Your task to perform on an android device: toggle notification dots Image 0: 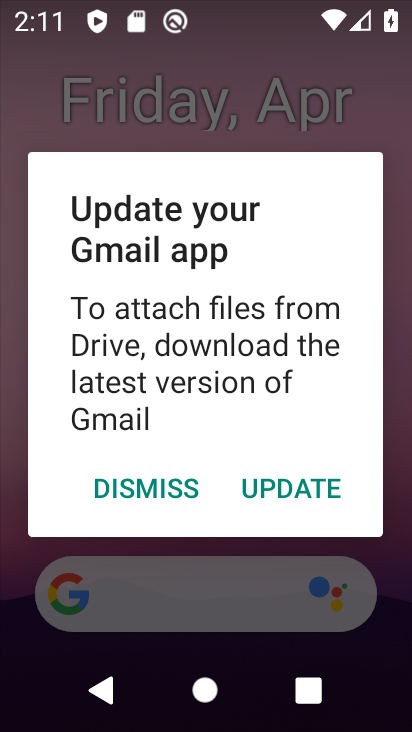
Step 0: press home button
Your task to perform on an android device: toggle notification dots Image 1: 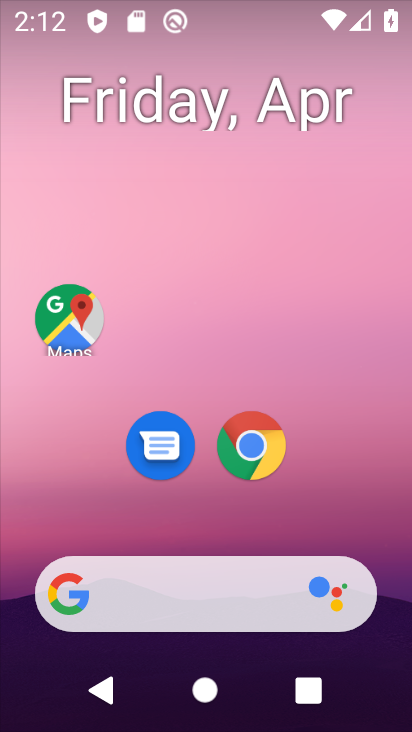
Step 1: drag from (328, 432) to (262, 1)
Your task to perform on an android device: toggle notification dots Image 2: 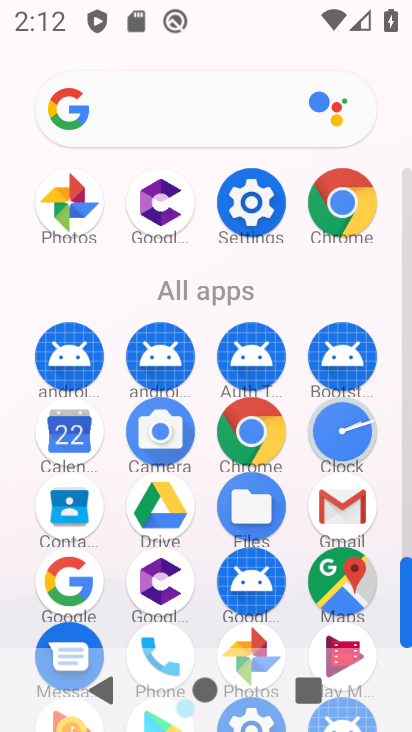
Step 2: click (252, 199)
Your task to perform on an android device: toggle notification dots Image 3: 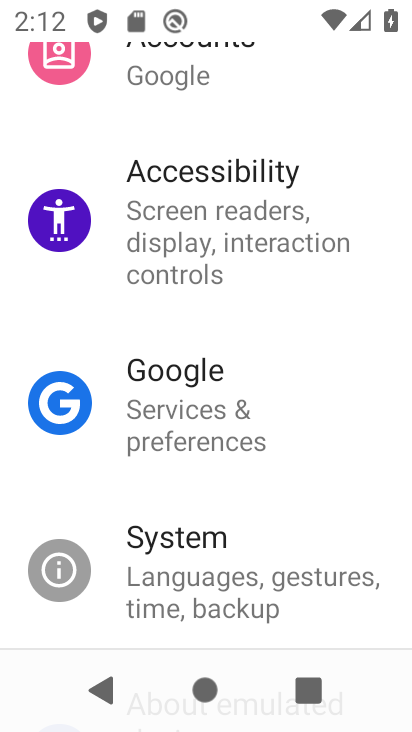
Step 3: drag from (255, 319) to (227, 518)
Your task to perform on an android device: toggle notification dots Image 4: 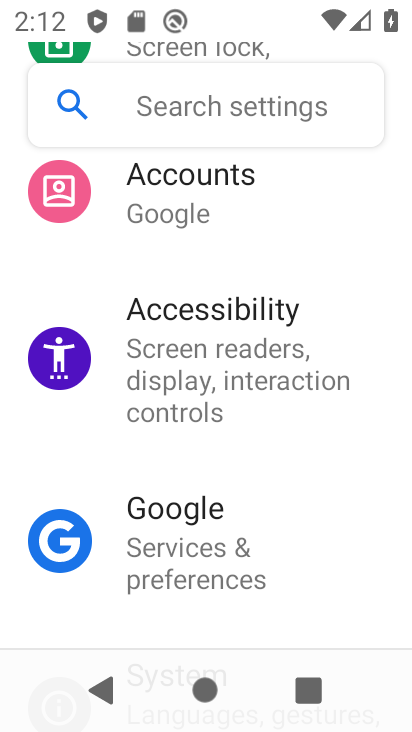
Step 4: drag from (271, 248) to (274, 486)
Your task to perform on an android device: toggle notification dots Image 5: 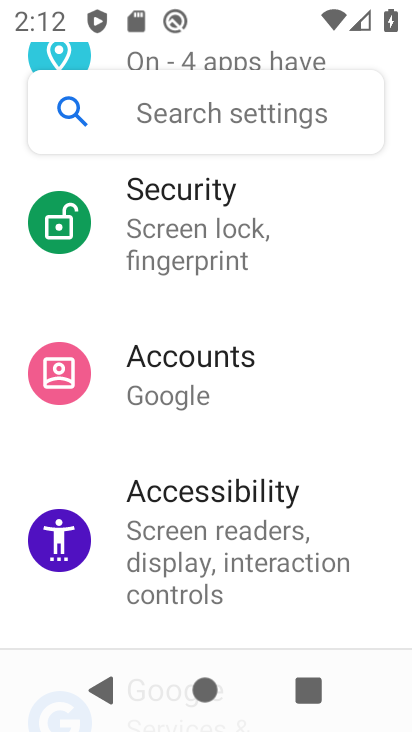
Step 5: drag from (264, 302) to (263, 493)
Your task to perform on an android device: toggle notification dots Image 6: 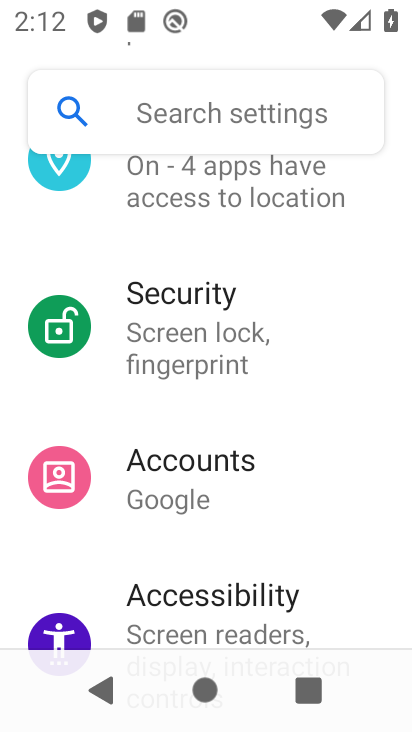
Step 6: drag from (267, 271) to (264, 459)
Your task to perform on an android device: toggle notification dots Image 7: 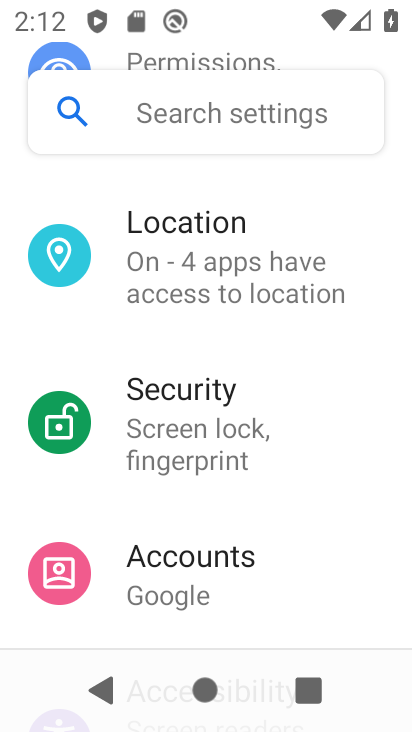
Step 7: drag from (301, 214) to (302, 468)
Your task to perform on an android device: toggle notification dots Image 8: 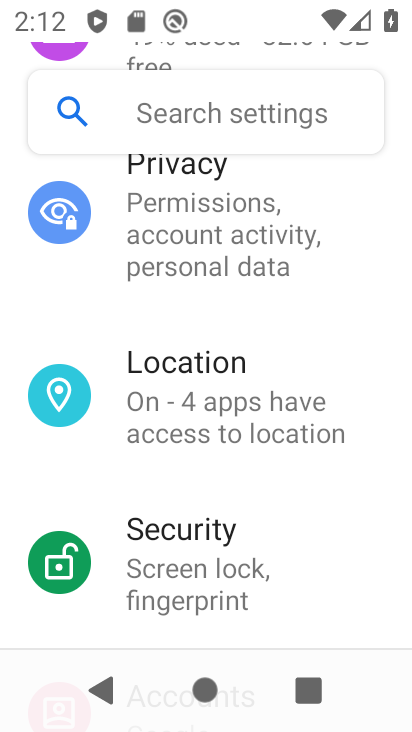
Step 8: drag from (291, 323) to (292, 514)
Your task to perform on an android device: toggle notification dots Image 9: 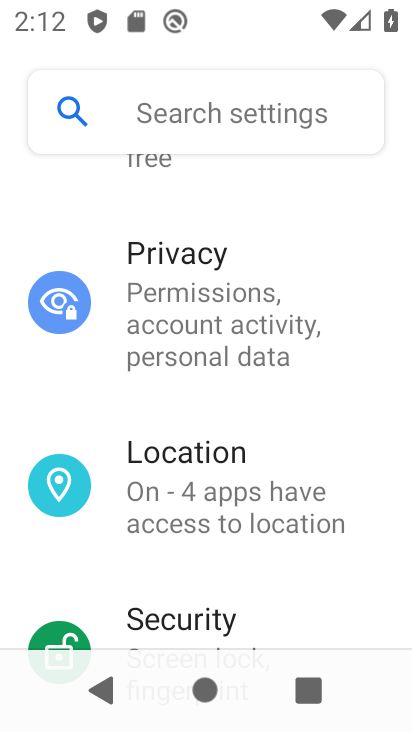
Step 9: drag from (316, 216) to (314, 388)
Your task to perform on an android device: toggle notification dots Image 10: 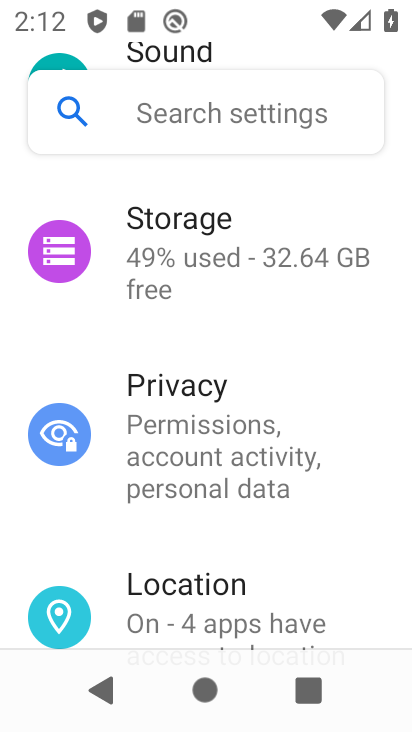
Step 10: drag from (290, 320) to (310, 508)
Your task to perform on an android device: toggle notification dots Image 11: 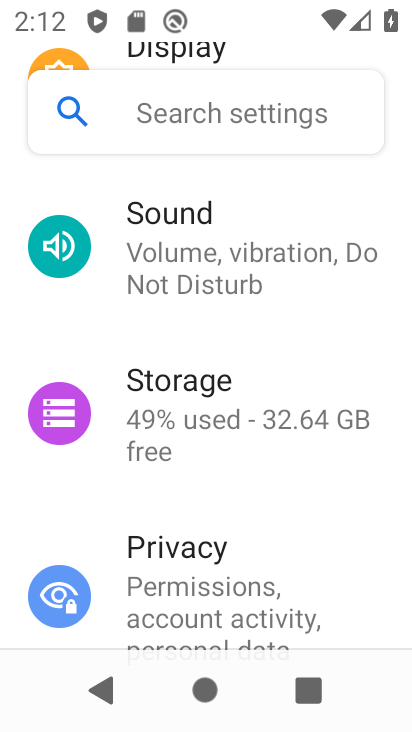
Step 11: drag from (277, 329) to (274, 495)
Your task to perform on an android device: toggle notification dots Image 12: 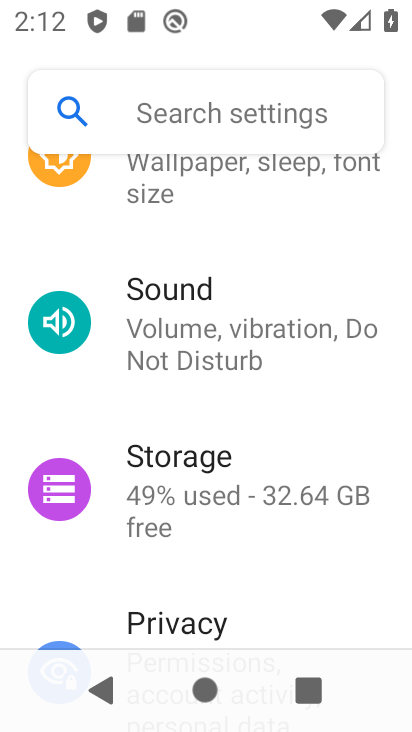
Step 12: drag from (314, 267) to (314, 451)
Your task to perform on an android device: toggle notification dots Image 13: 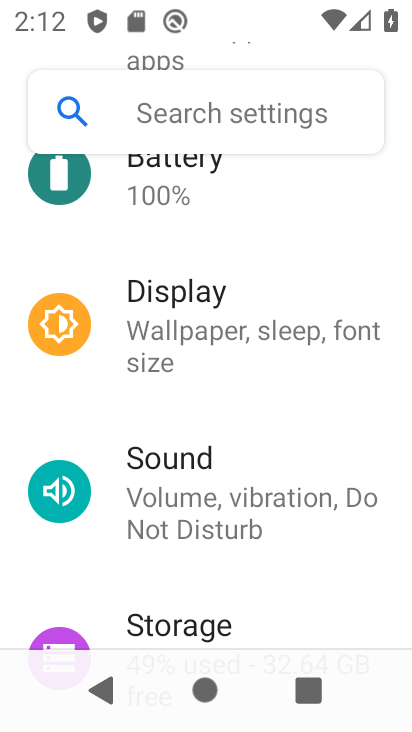
Step 13: drag from (303, 254) to (265, 459)
Your task to perform on an android device: toggle notification dots Image 14: 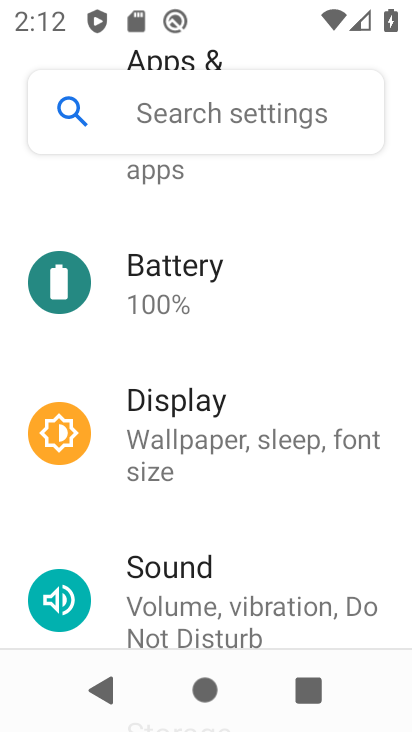
Step 14: drag from (288, 331) to (292, 540)
Your task to perform on an android device: toggle notification dots Image 15: 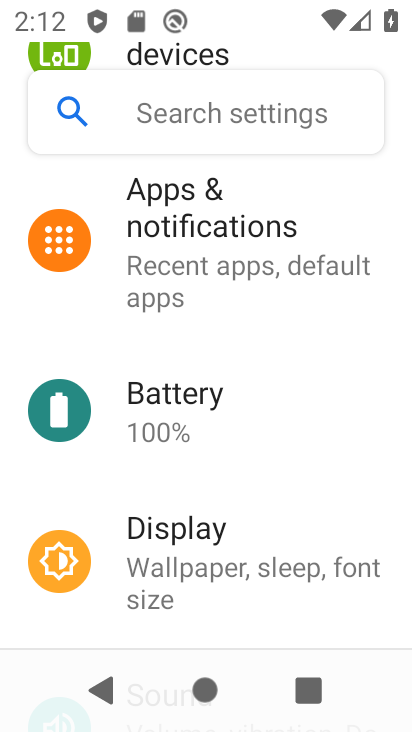
Step 15: click (258, 233)
Your task to perform on an android device: toggle notification dots Image 16: 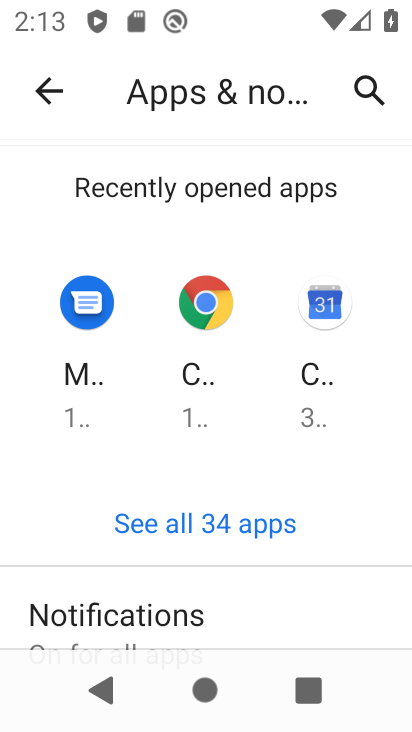
Step 16: drag from (288, 595) to (320, 377)
Your task to perform on an android device: toggle notification dots Image 17: 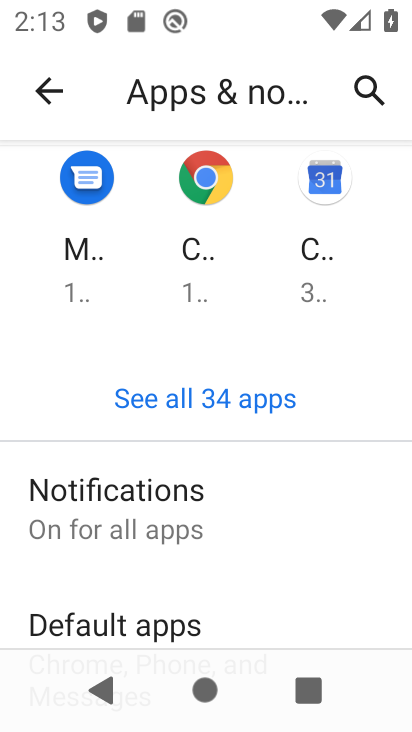
Step 17: click (182, 494)
Your task to perform on an android device: toggle notification dots Image 18: 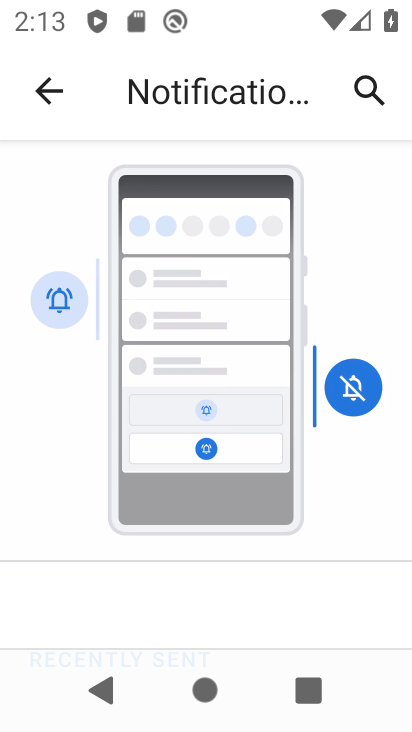
Step 18: drag from (205, 609) to (297, 410)
Your task to perform on an android device: toggle notification dots Image 19: 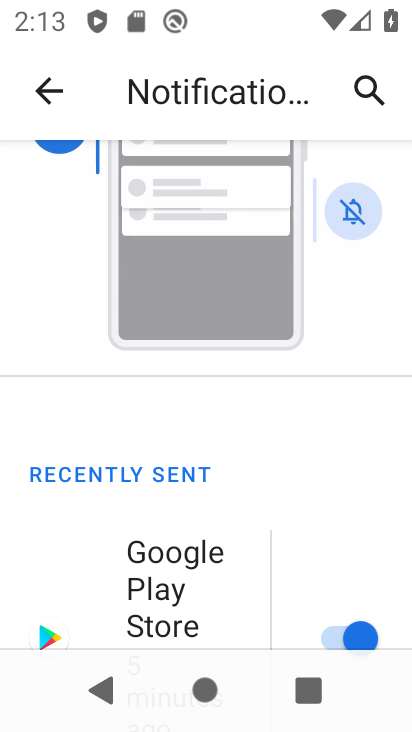
Step 19: drag from (249, 473) to (322, 192)
Your task to perform on an android device: toggle notification dots Image 20: 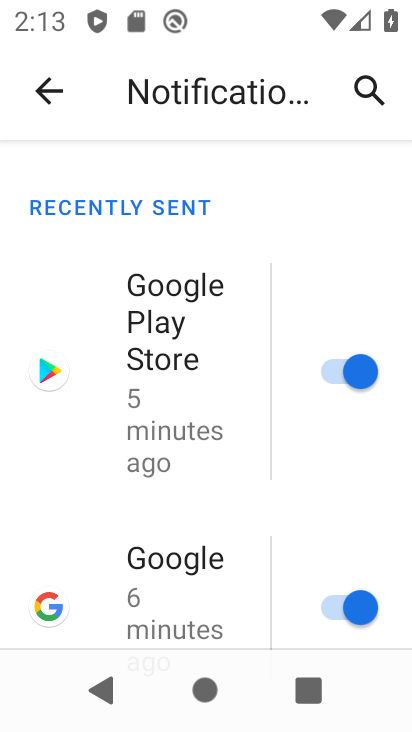
Step 20: drag from (215, 425) to (274, 222)
Your task to perform on an android device: toggle notification dots Image 21: 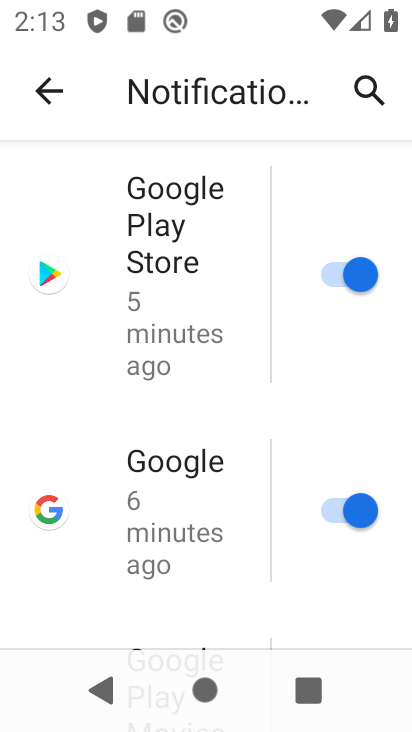
Step 21: drag from (187, 597) to (287, 288)
Your task to perform on an android device: toggle notification dots Image 22: 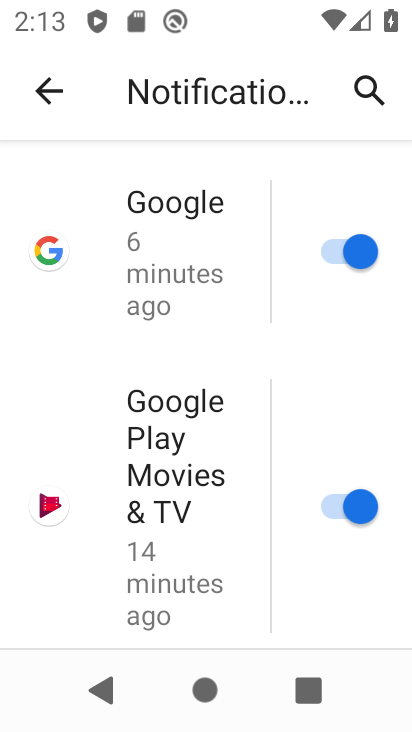
Step 22: drag from (201, 607) to (268, 285)
Your task to perform on an android device: toggle notification dots Image 23: 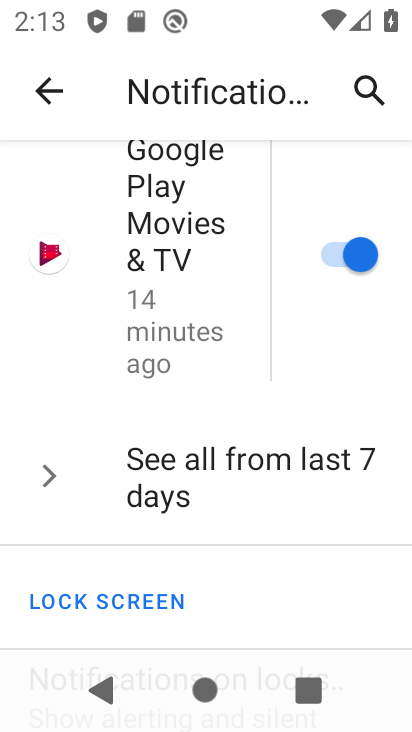
Step 23: drag from (158, 584) to (316, 294)
Your task to perform on an android device: toggle notification dots Image 24: 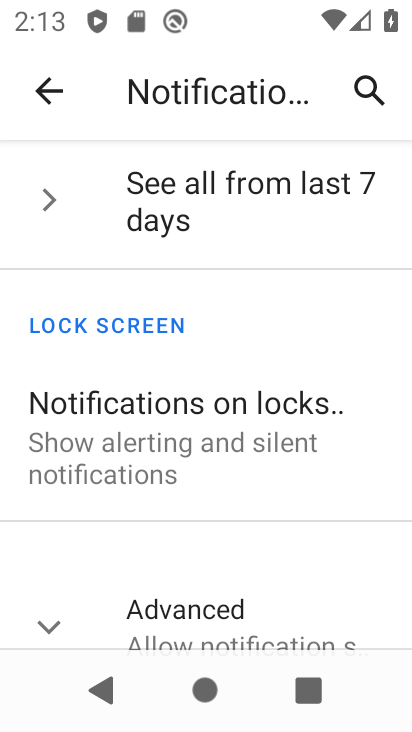
Step 24: drag from (201, 541) to (286, 369)
Your task to perform on an android device: toggle notification dots Image 25: 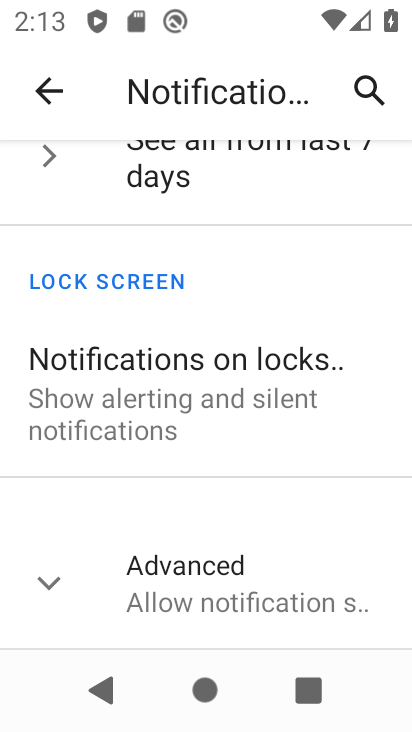
Step 25: click (219, 580)
Your task to perform on an android device: toggle notification dots Image 26: 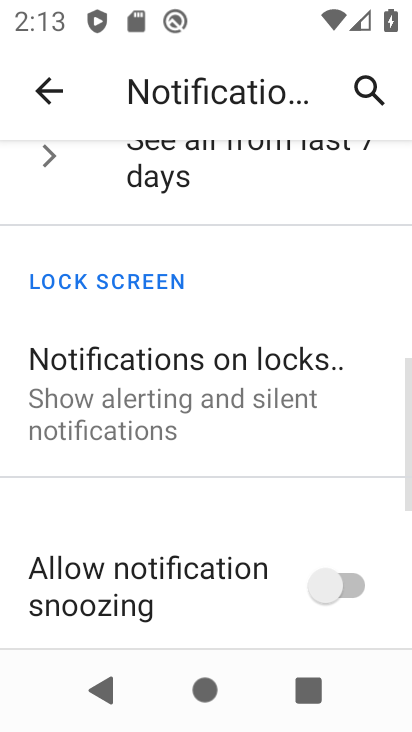
Step 26: drag from (208, 619) to (316, 456)
Your task to perform on an android device: toggle notification dots Image 27: 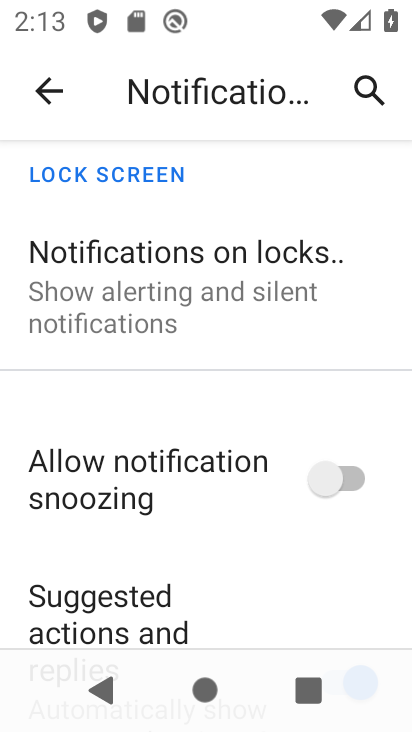
Step 27: drag from (250, 584) to (356, 370)
Your task to perform on an android device: toggle notification dots Image 28: 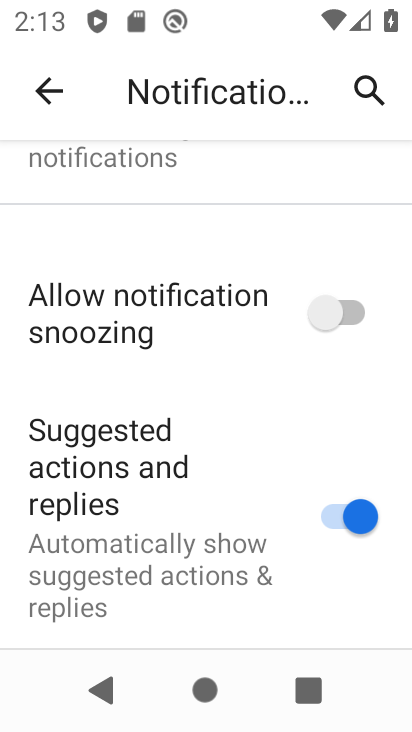
Step 28: drag from (211, 614) to (319, 340)
Your task to perform on an android device: toggle notification dots Image 29: 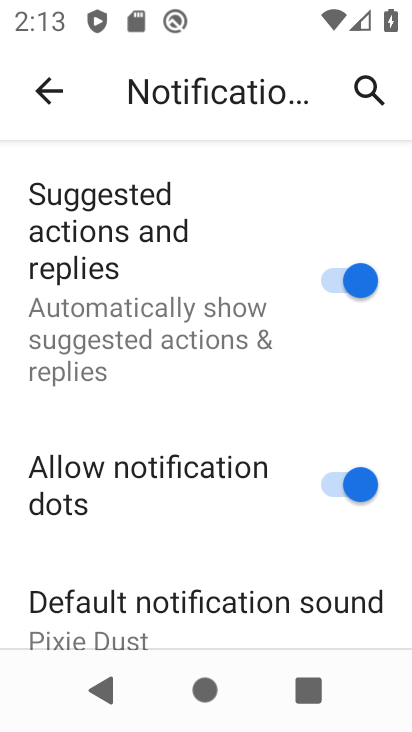
Step 29: click (364, 490)
Your task to perform on an android device: toggle notification dots Image 30: 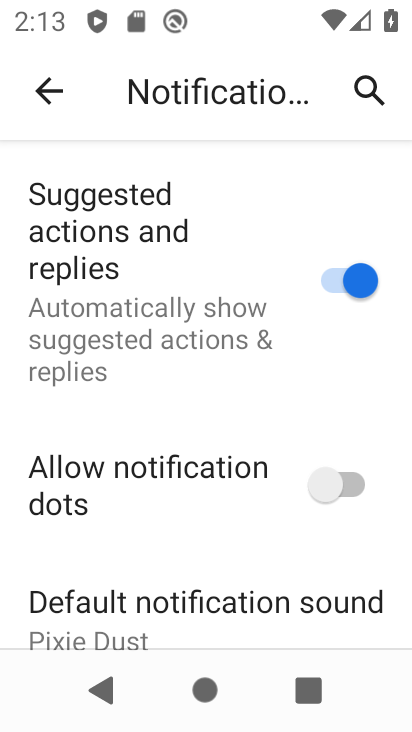
Step 30: task complete